Your task to perform on an android device: Go to Amazon Image 0: 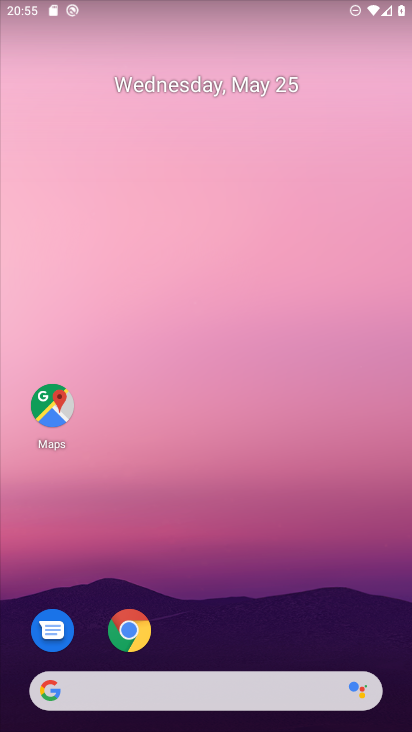
Step 0: drag from (240, 607) to (328, 72)
Your task to perform on an android device: Go to Amazon Image 1: 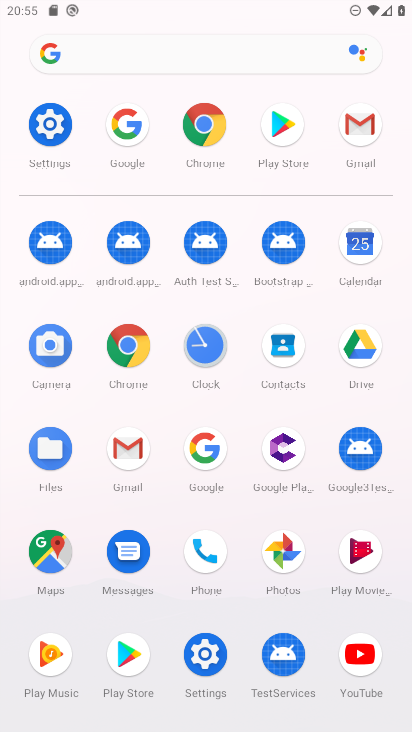
Step 1: click (125, 344)
Your task to perform on an android device: Go to Amazon Image 2: 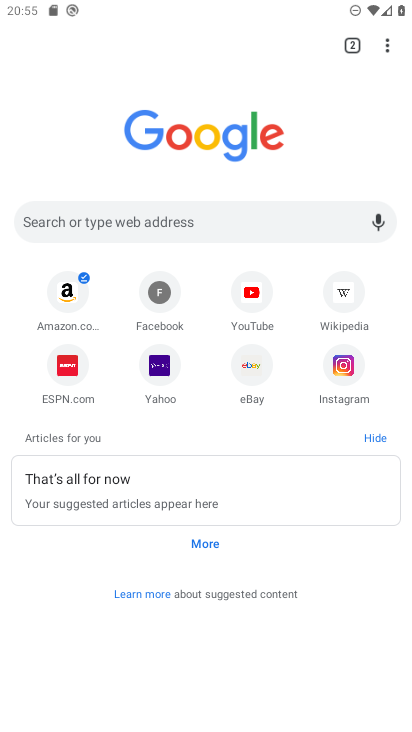
Step 2: click (67, 289)
Your task to perform on an android device: Go to Amazon Image 3: 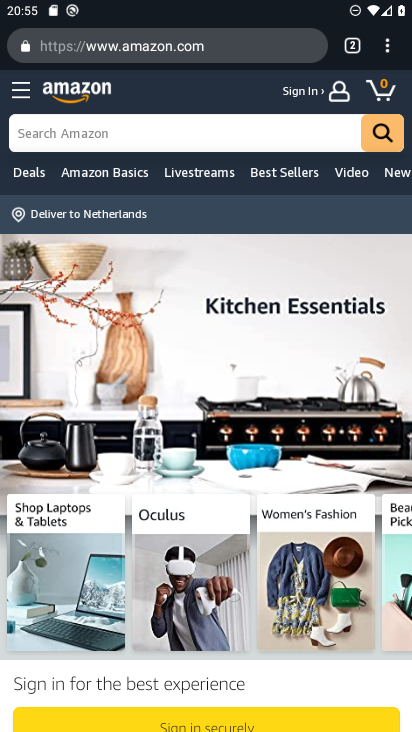
Step 3: task complete